Your task to perform on an android device: Open ESPN.com Image 0: 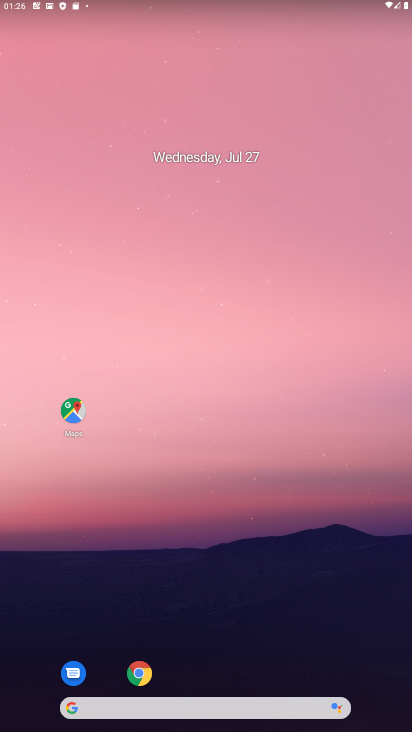
Step 0: click (145, 669)
Your task to perform on an android device: Open ESPN.com Image 1: 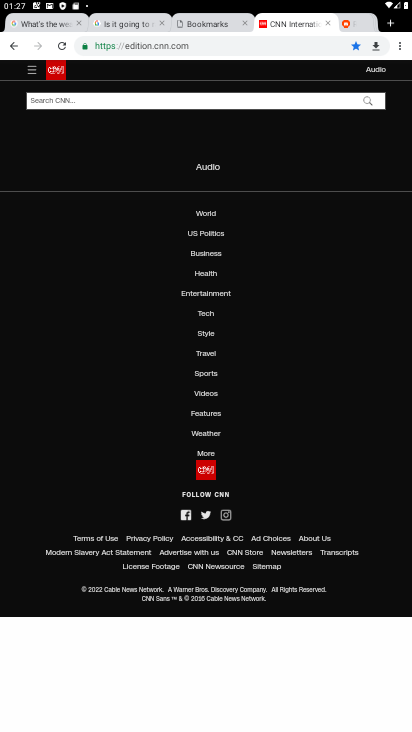
Step 1: click (394, 23)
Your task to perform on an android device: Open ESPN.com Image 2: 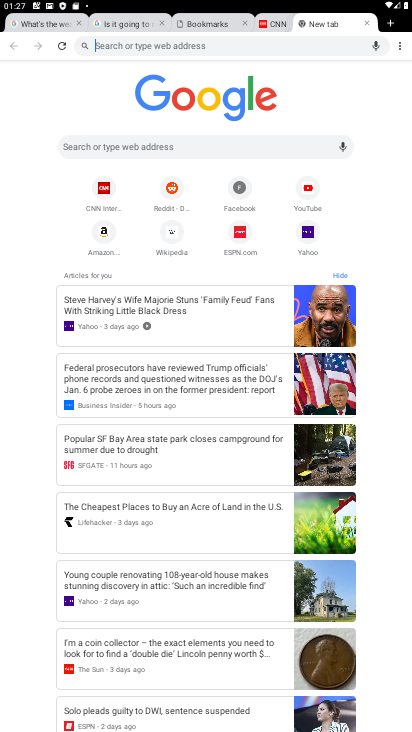
Step 2: click (96, 178)
Your task to perform on an android device: Open ESPN.com Image 3: 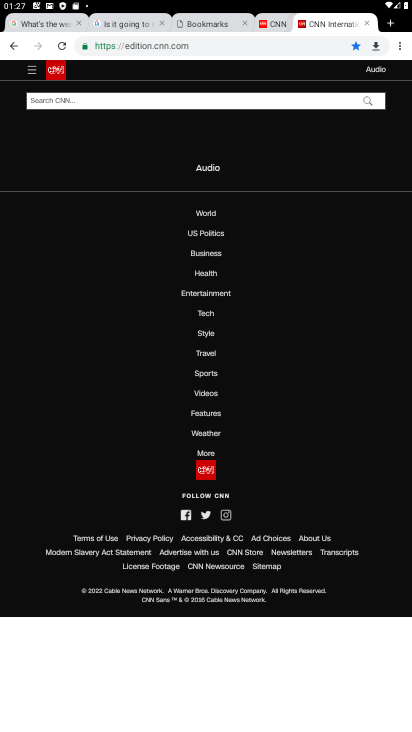
Step 3: click (367, 22)
Your task to perform on an android device: Open ESPN.com Image 4: 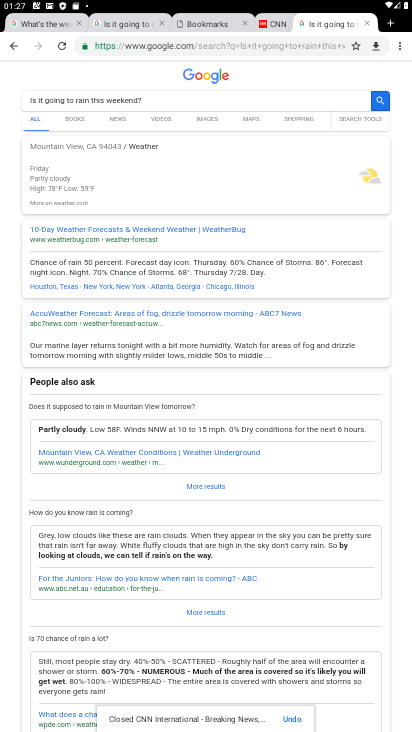
Step 4: click (363, 24)
Your task to perform on an android device: Open ESPN.com Image 5: 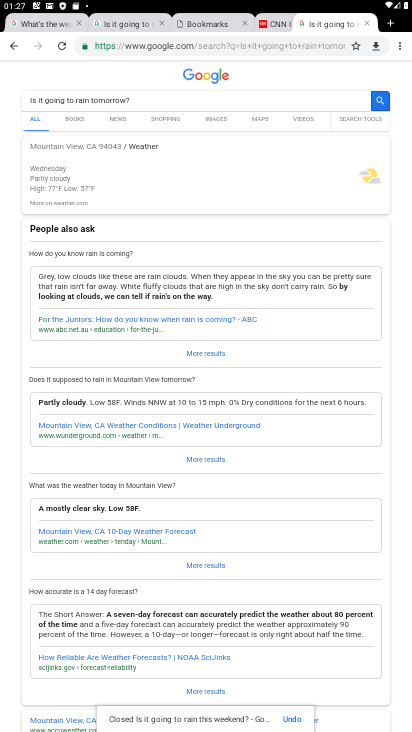
Step 5: click (367, 21)
Your task to perform on an android device: Open ESPN.com Image 6: 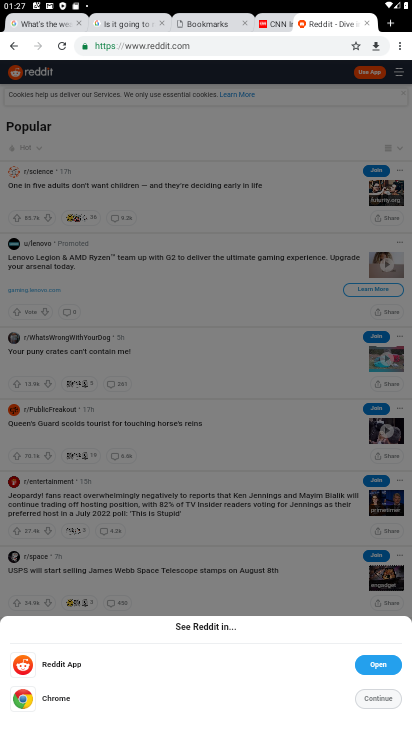
Step 6: click (368, 25)
Your task to perform on an android device: Open ESPN.com Image 7: 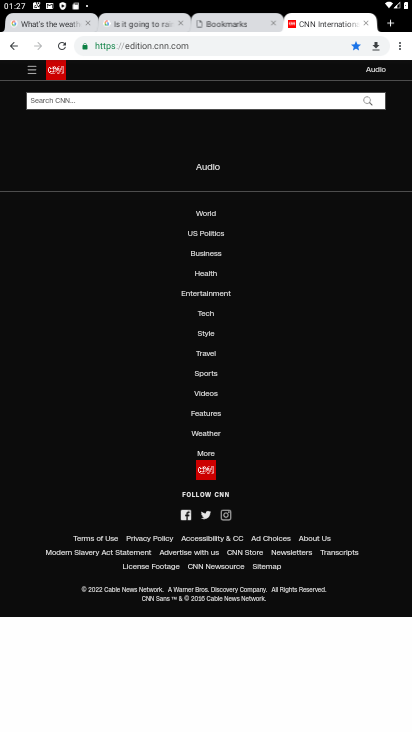
Step 7: click (272, 23)
Your task to perform on an android device: Open ESPN.com Image 8: 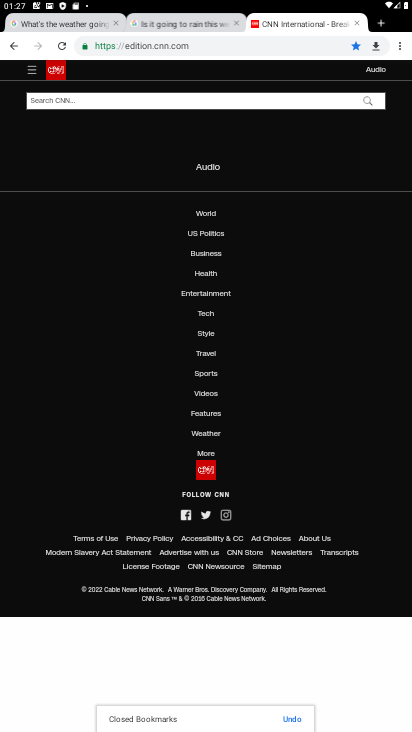
Step 8: click (380, 22)
Your task to perform on an android device: Open ESPN.com Image 9: 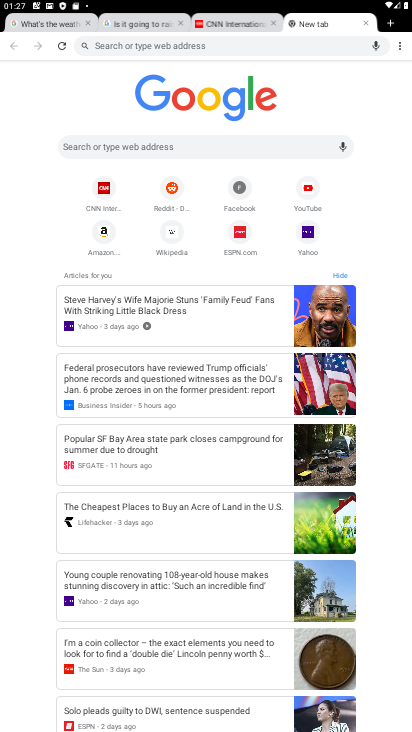
Step 9: click (246, 241)
Your task to perform on an android device: Open ESPN.com Image 10: 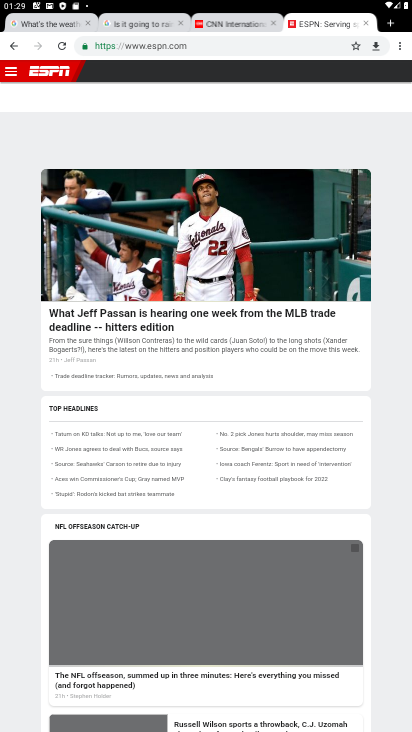
Step 10: task complete